Your task to perform on an android device: Open Google Maps Image 0: 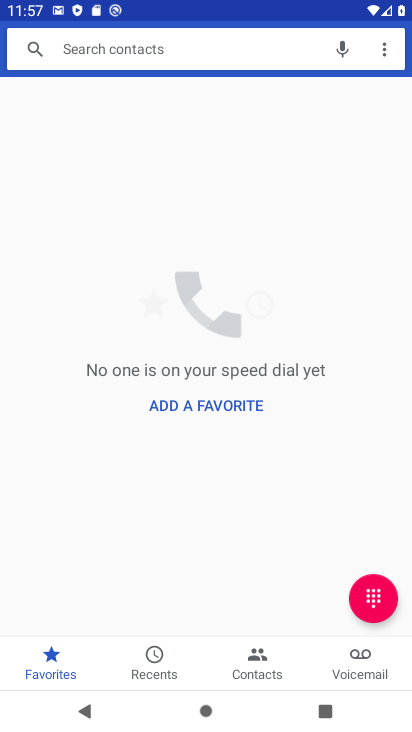
Step 0: press home button
Your task to perform on an android device: Open Google Maps Image 1: 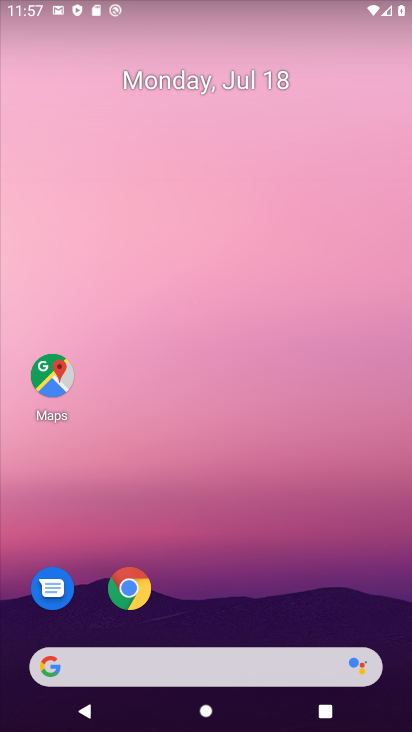
Step 1: drag from (353, 504) to (304, 40)
Your task to perform on an android device: Open Google Maps Image 2: 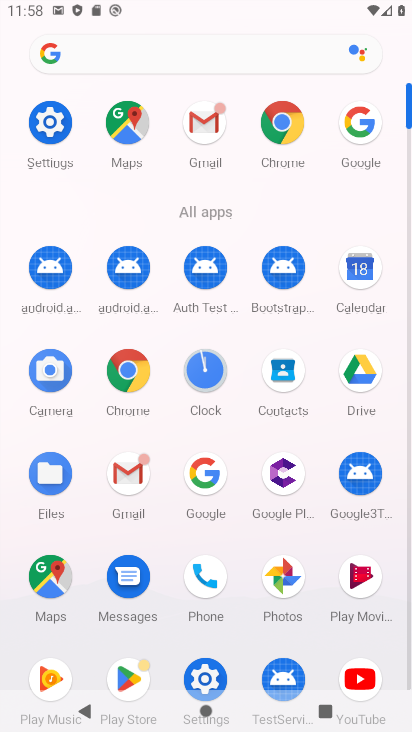
Step 2: click (72, 580)
Your task to perform on an android device: Open Google Maps Image 3: 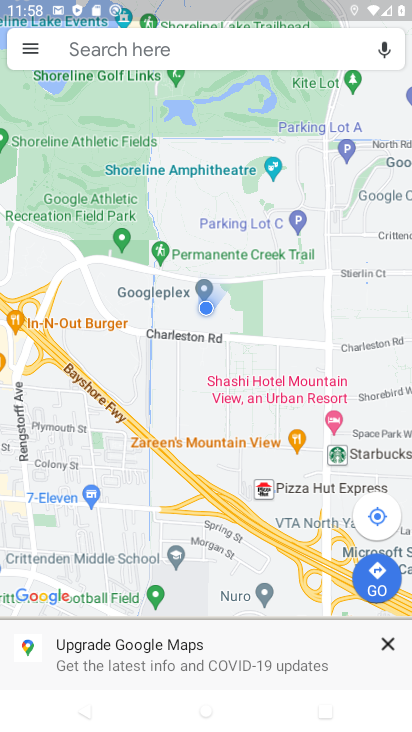
Step 3: task complete